Your task to perform on an android device: open device folders in google photos Image 0: 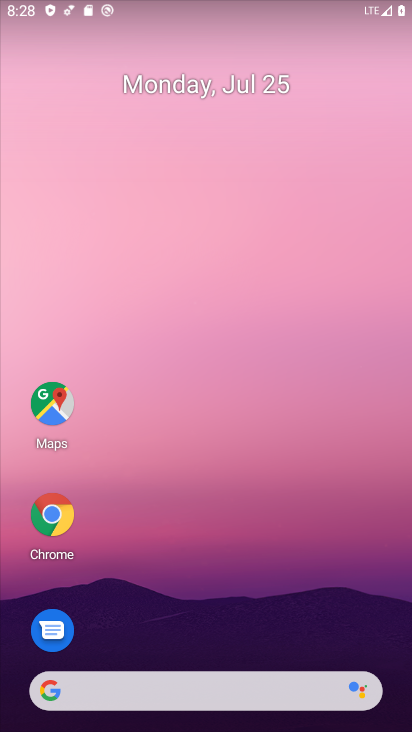
Step 0: drag from (13, 664) to (323, 135)
Your task to perform on an android device: open device folders in google photos Image 1: 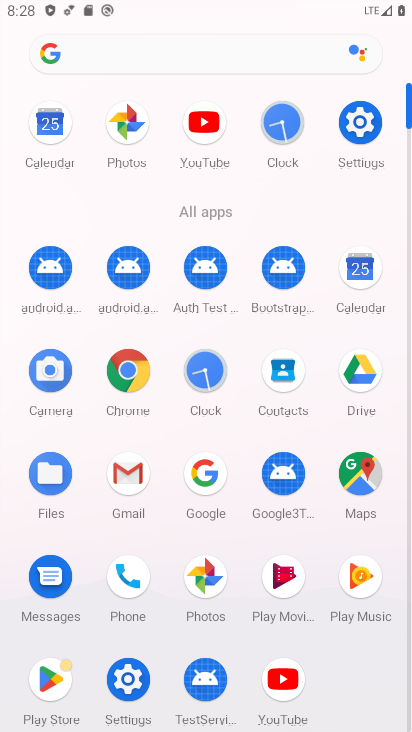
Step 1: click (200, 584)
Your task to perform on an android device: open device folders in google photos Image 2: 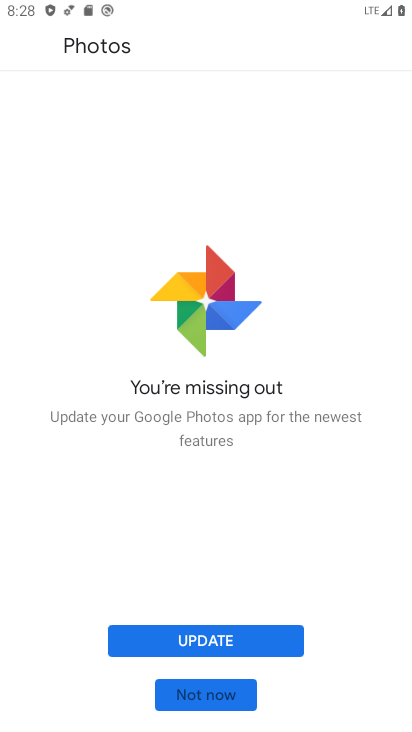
Step 2: task complete